Your task to perform on an android device: turn off notifications settings in the gmail app Image 0: 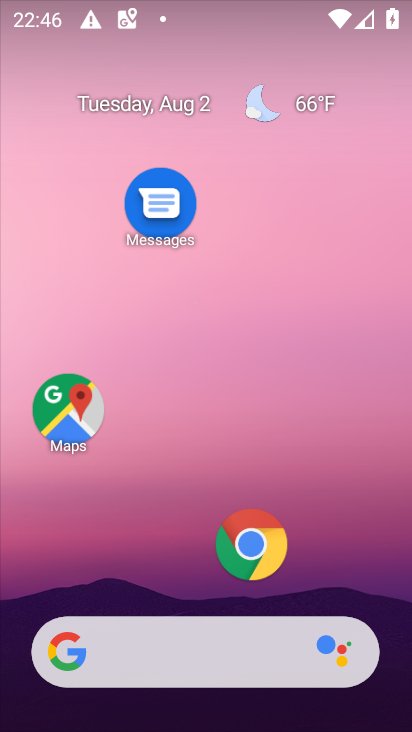
Step 0: drag from (187, 477) to (203, 172)
Your task to perform on an android device: turn off notifications settings in the gmail app Image 1: 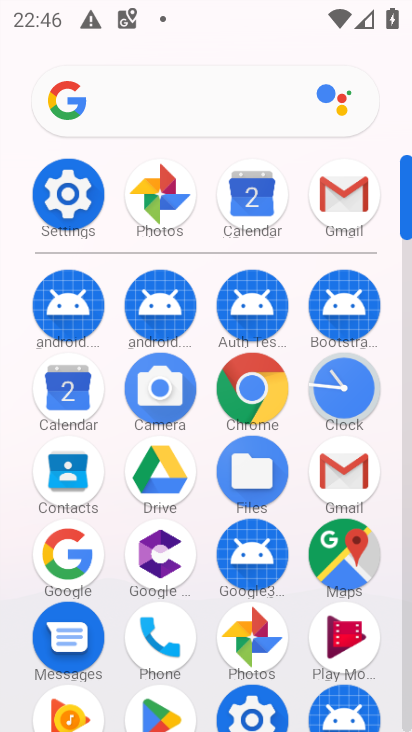
Step 1: click (345, 217)
Your task to perform on an android device: turn off notifications settings in the gmail app Image 2: 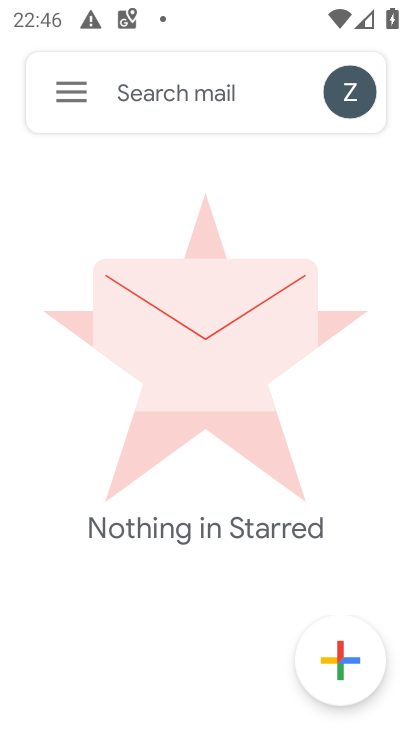
Step 2: drag from (60, 102) to (112, 102)
Your task to perform on an android device: turn off notifications settings in the gmail app Image 3: 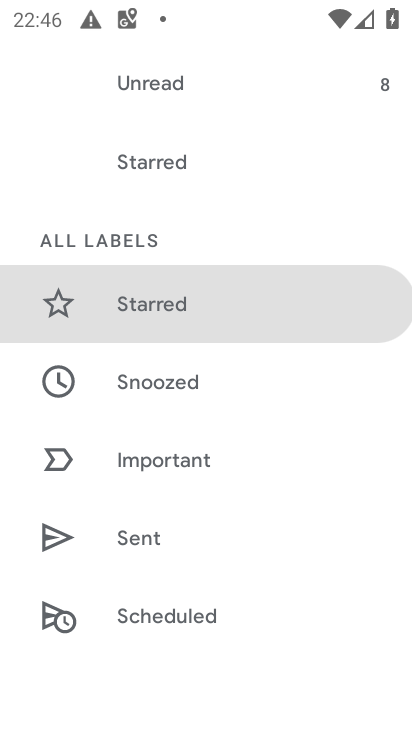
Step 3: drag from (181, 593) to (189, 182)
Your task to perform on an android device: turn off notifications settings in the gmail app Image 4: 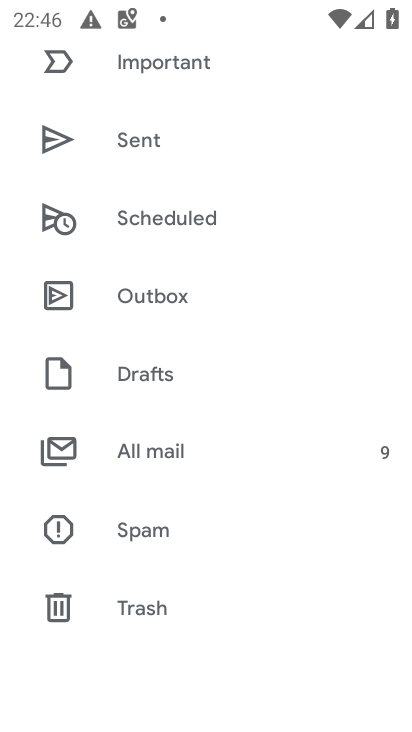
Step 4: drag from (181, 600) to (192, 298)
Your task to perform on an android device: turn off notifications settings in the gmail app Image 5: 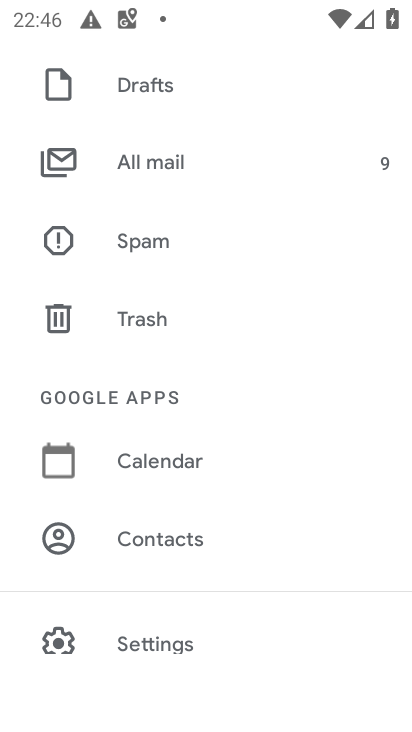
Step 5: drag from (194, 593) to (186, 313)
Your task to perform on an android device: turn off notifications settings in the gmail app Image 6: 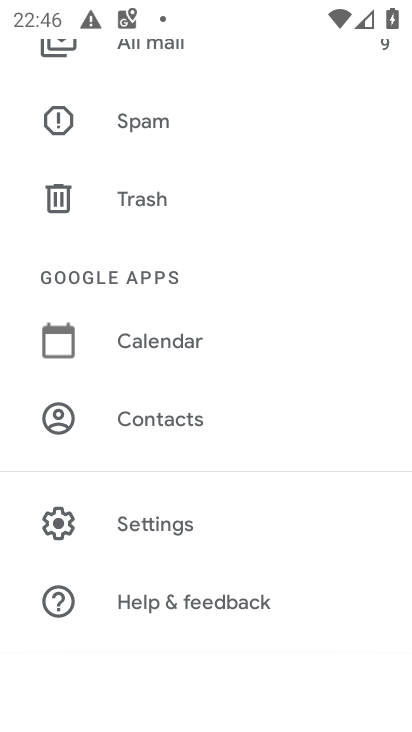
Step 6: click (154, 513)
Your task to perform on an android device: turn off notifications settings in the gmail app Image 7: 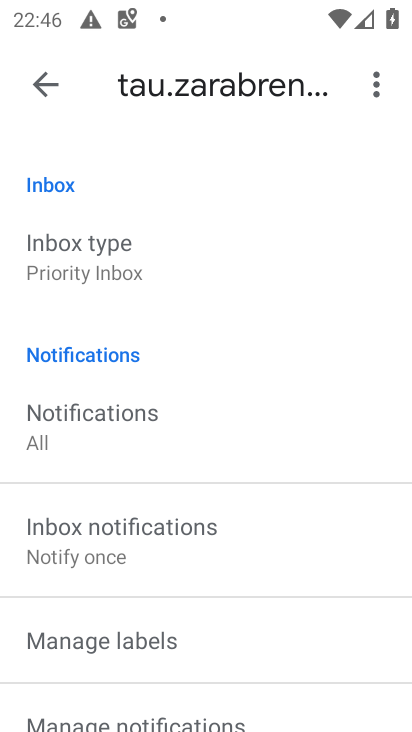
Step 7: drag from (160, 630) to (190, 278)
Your task to perform on an android device: turn off notifications settings in the gmail app Image 8: 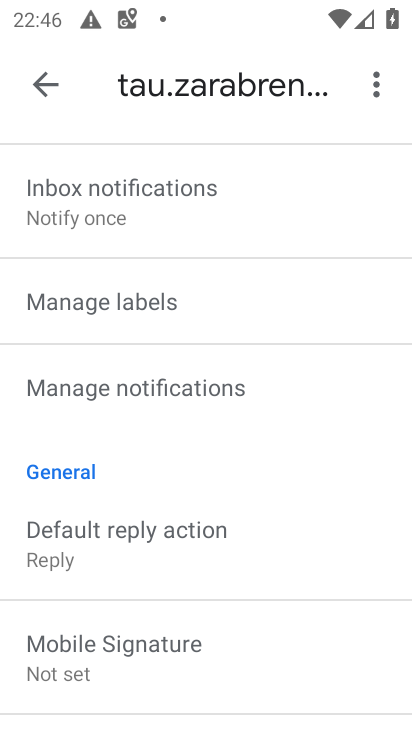
Step 8: drag from (176, 665) to (176, 505)
Your task to perform on an android device: turn off notifications settings in the gmail app Image 9: 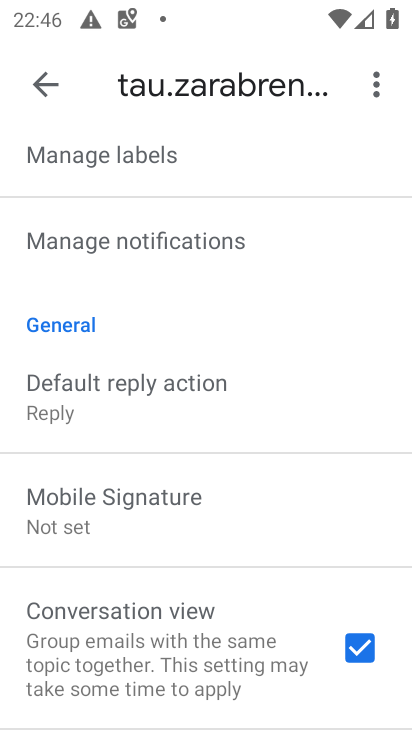
Step 9: click (183, 234)
Your task to perform on an android device: turn off notifications settings in the gmail app Image 10: 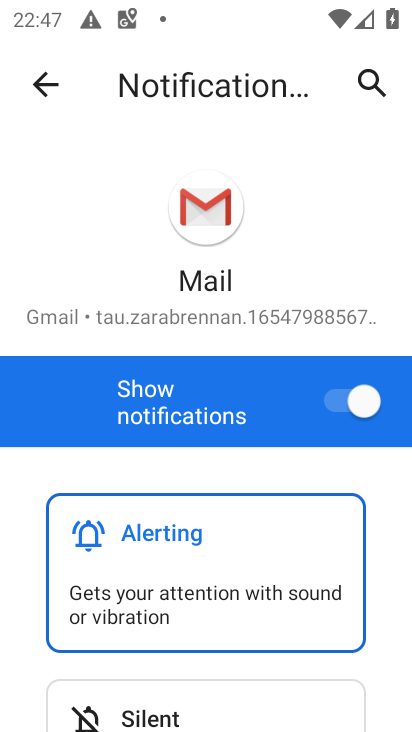
Step 10: click (348, 396)
Your task to perform on an android device: turn off notifications settings in the gmail app Image 11: 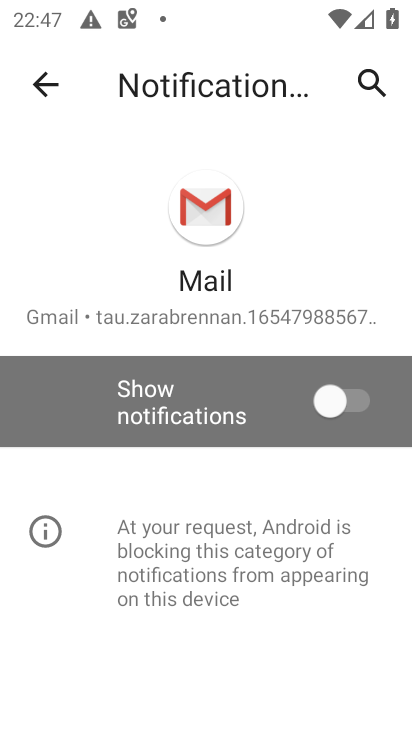
Step 11: task complete